Your task to perform on an android device: turn on notifications settings in the gmail app Image 0: 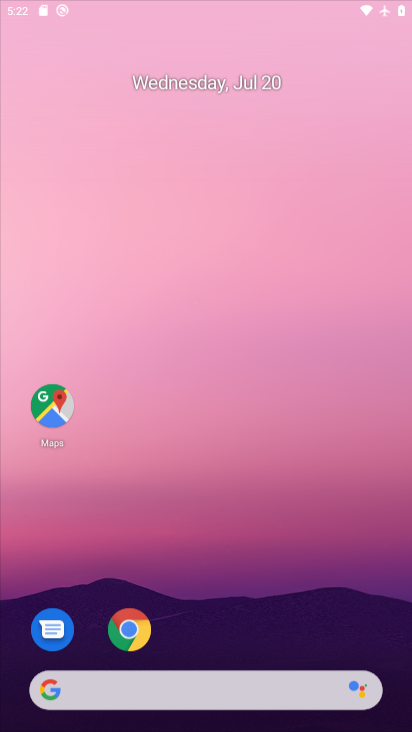
Step 0: press home button
Your task to perform on an android device: turn on notifications settings in the gmail app Image 1: 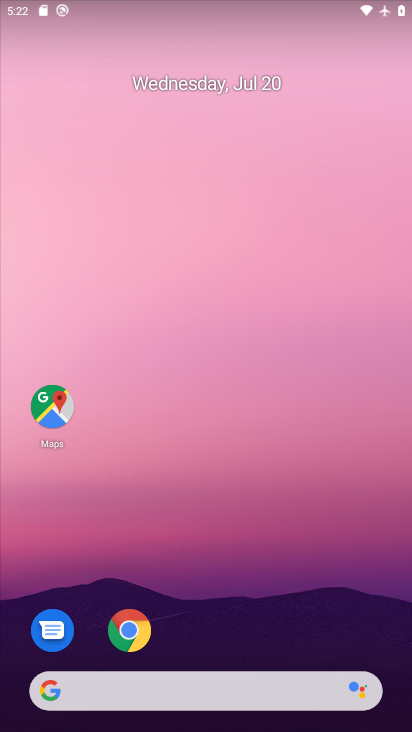
Step 1: drag from (265, 655) to (130, 0)
Your task to perform on an android device: turn on notifications settings in the gmail app Image 2: 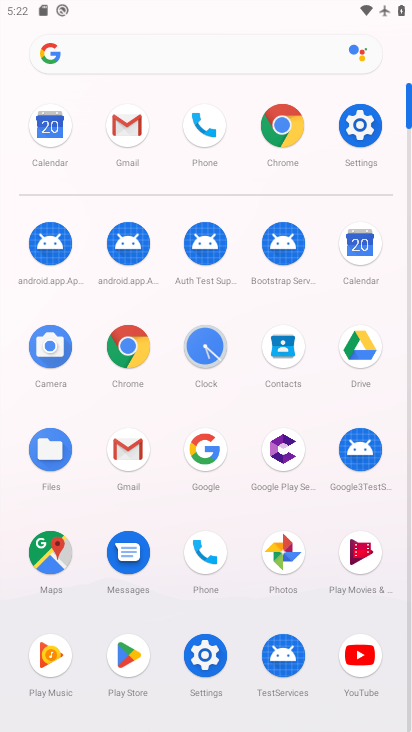
Step 2: click (123, 137)
Your task to perform on an android device: turn on notifications settings in the gmail app Image 3: 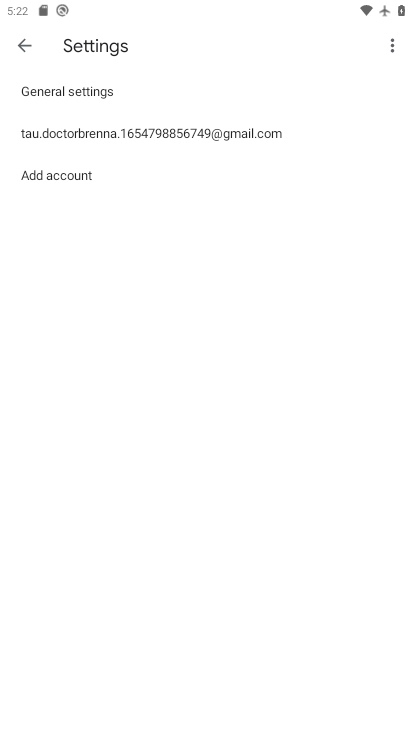
Step 3: click (74, 95)
Your task to perform on an android device: turn on notifications settings in the gmail app Image 4: 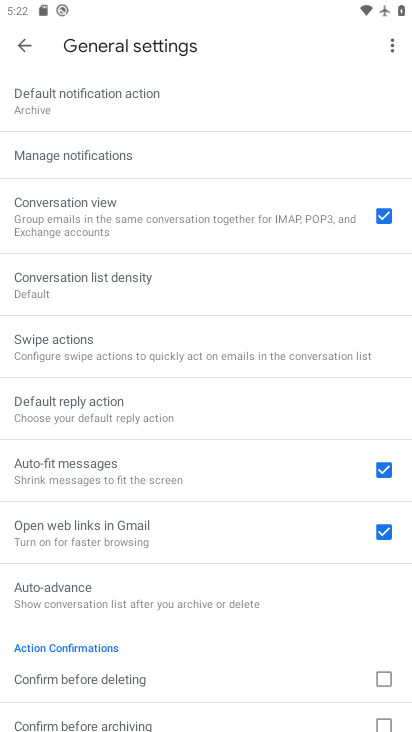
Step 4: click (64, 164)
Your task to perform on an android device: turn on notifications settings in the gmail app Image 5: 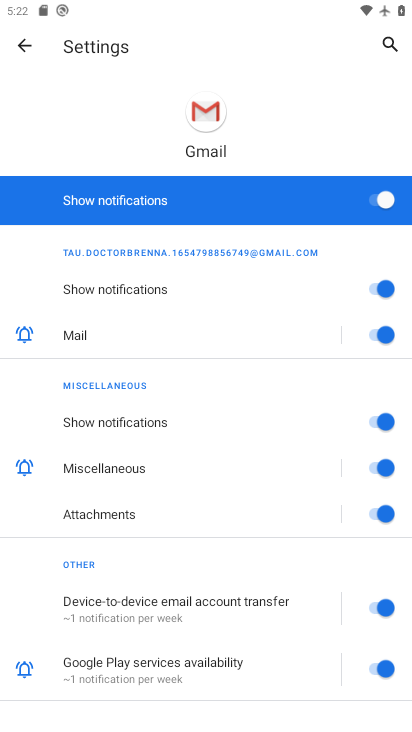
Step 5: task complete